Your task to perform on an android device: Search for Mexican restaurants on Maps Image 0: 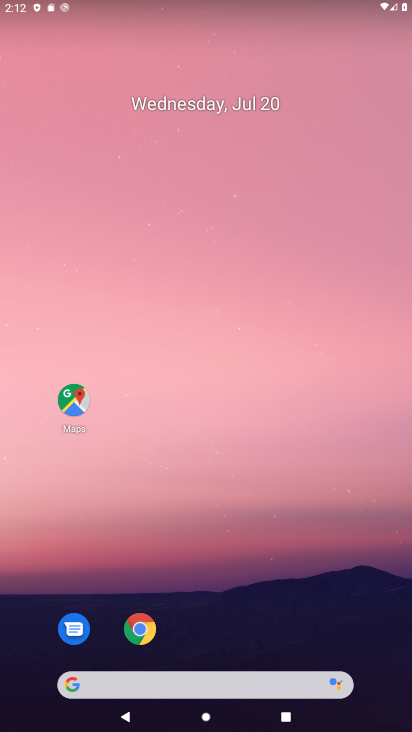
Step 0: click (73, 400)
Your task to perform on an android device: Search for Mexican restaurants on Maps Image 1: 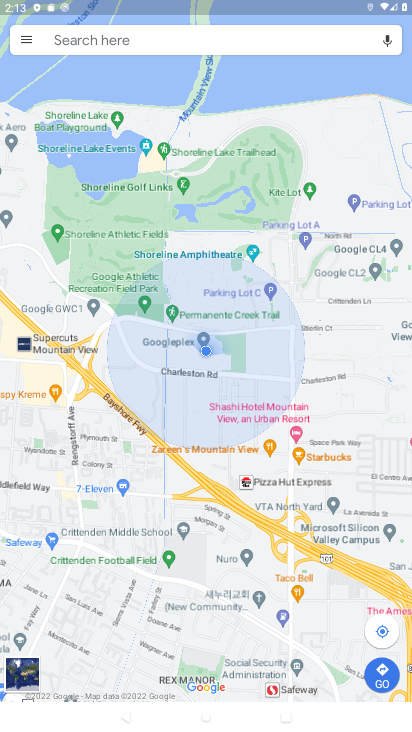
Step 1: click (134, 40)
Your task to perform on an android device: Search for Mexican restaurants on Maps Image 2: 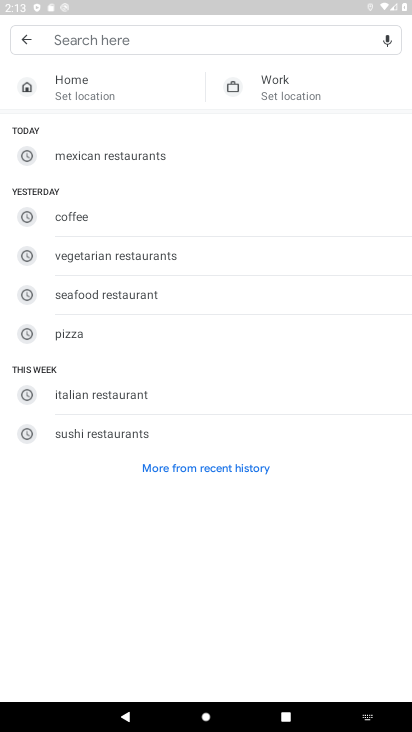
Step 2: type "mexican restauranrtgs"
Your task to perform on an android device: Search for Mexican restaurants on Maps Image 3: 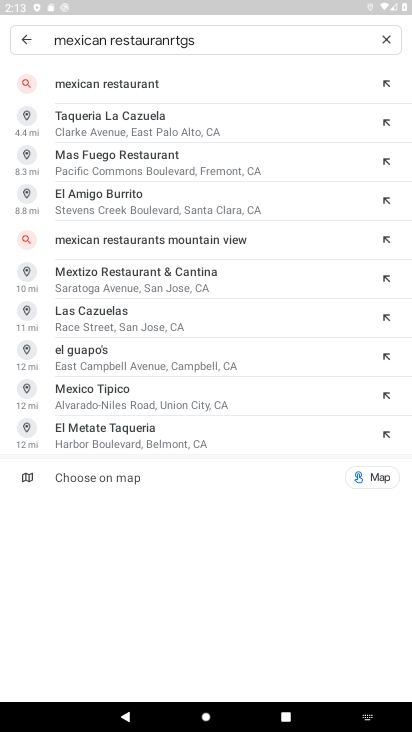
Step 3: click (124, 88)
Your task to perform on an android device: Search for Mexican restaurants on Maps Image 4: 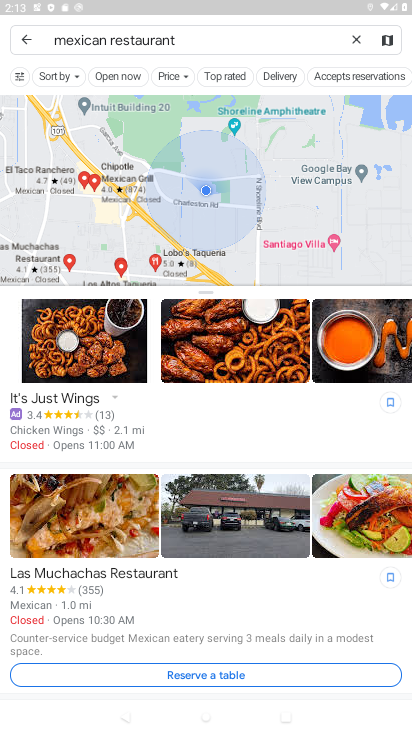
Step 4: task complete